Your task to perform on an android device: Open wifi settings Image 0: 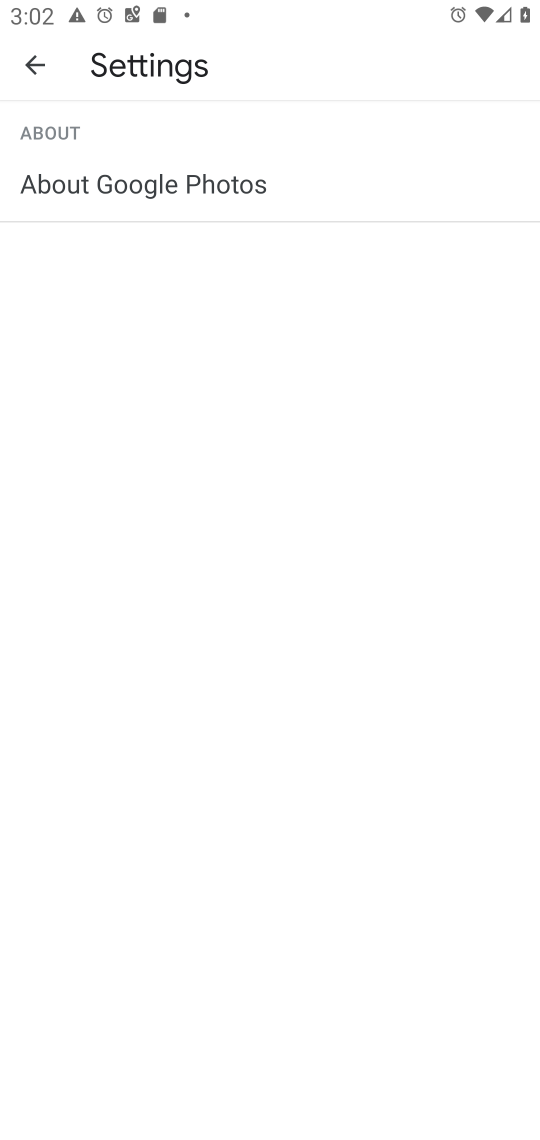
Step 0: press home button
Your task to perform on an android device: Open wifi settings Image 1: 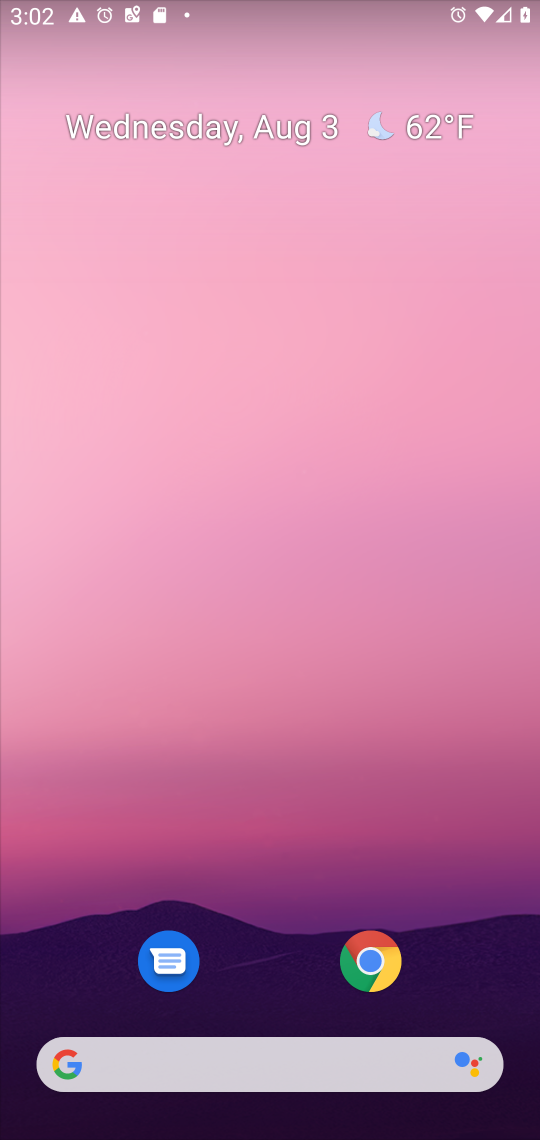
Step 1: drag from (265, 915) to (265, 15)
Your task to perform on an android device: Open wifi settings Image 2: 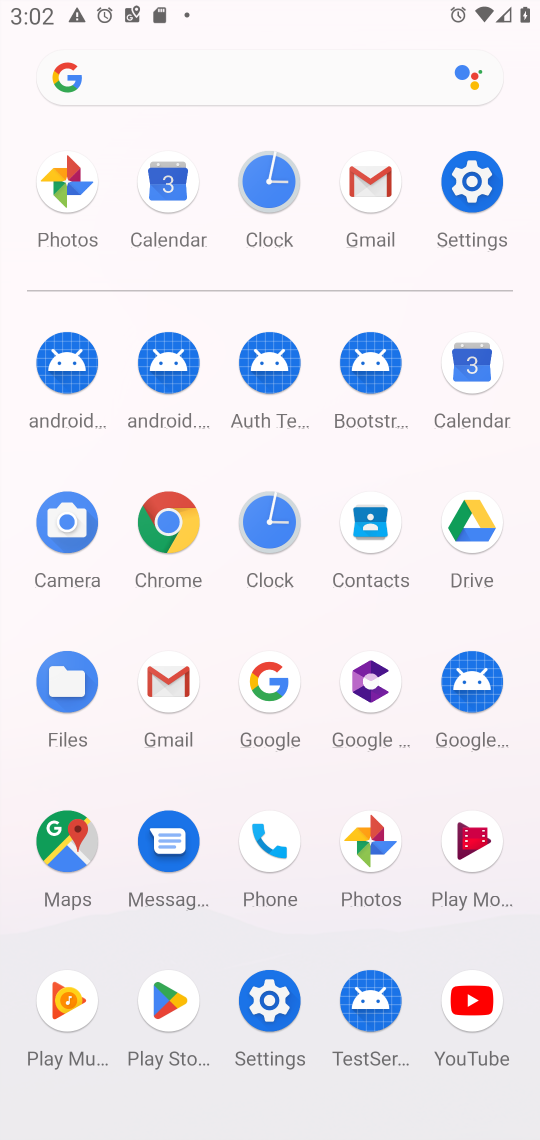
Step 2: click (475, 195)
Your task to perform on an android device: Open wifi settings Image 3: 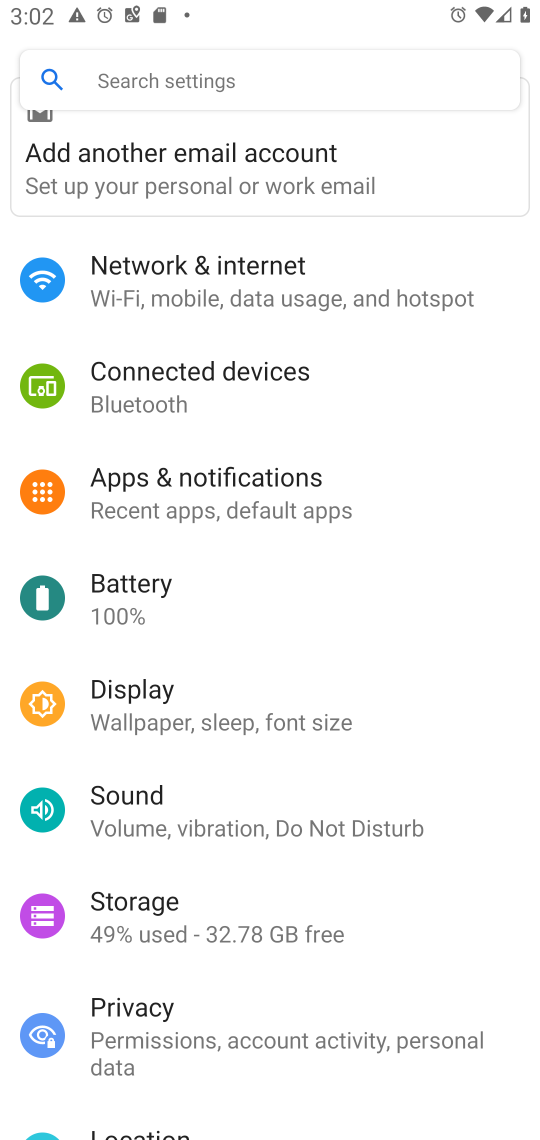
Step 3: click (151, 278)
Your task to perform on an android device: Open wifi settings Image 4: 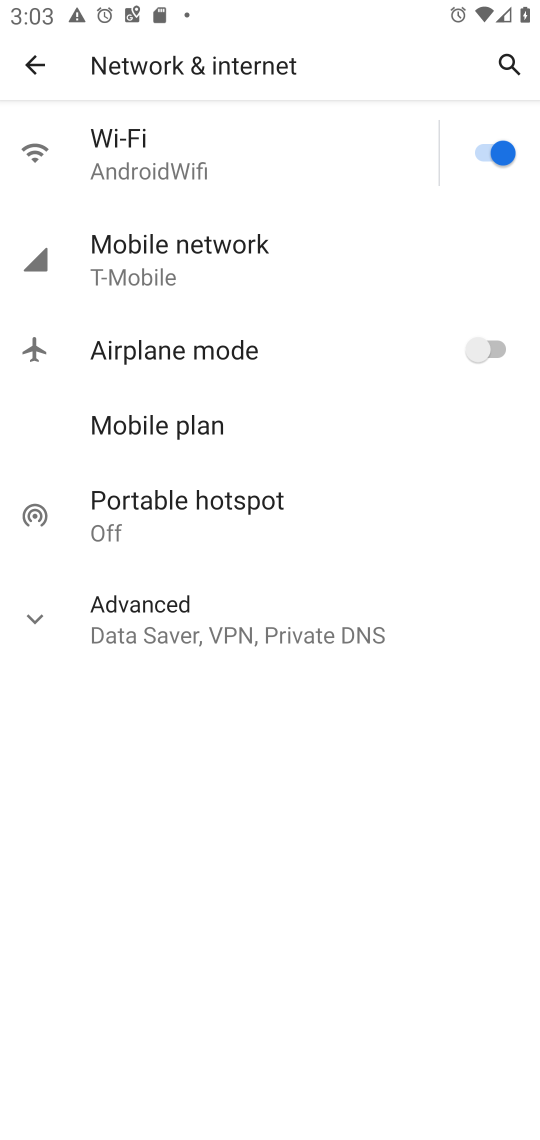
Step 4: click (64, 157)
Your task to perform on an android device: Open wifi settings Image 5: 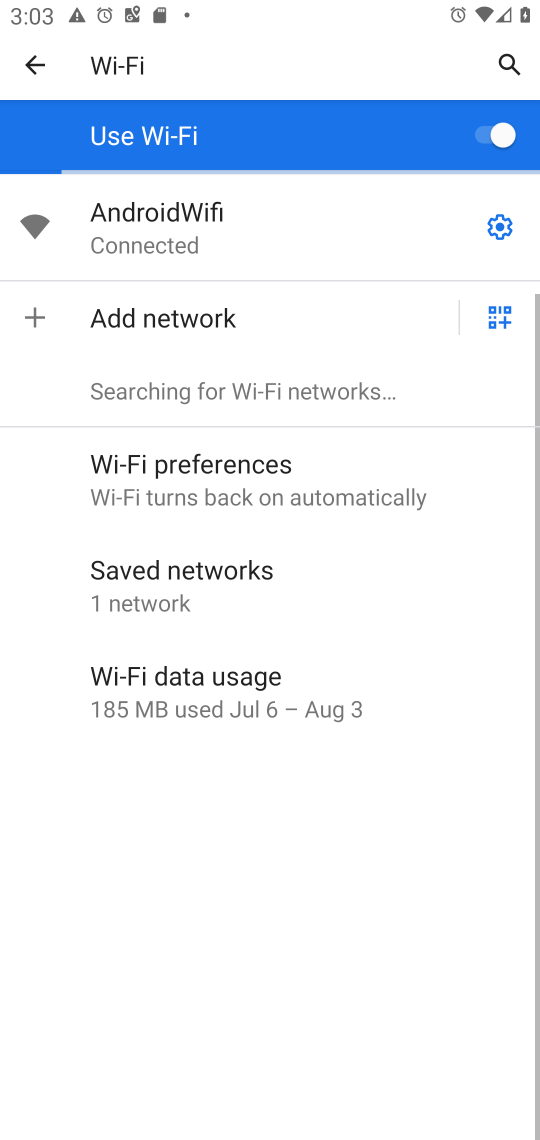
Step 5: task complete